Your task to perform on an android device: change text size in settings app Image 0: 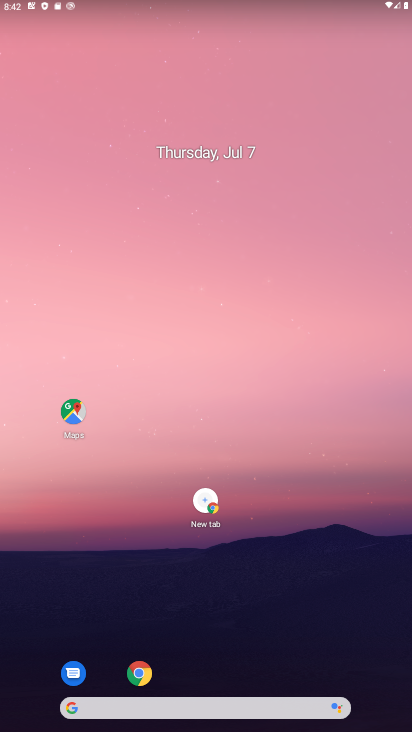
Step 0: press home button
Your task to perform on an android device: change text size in settings app Image 1: 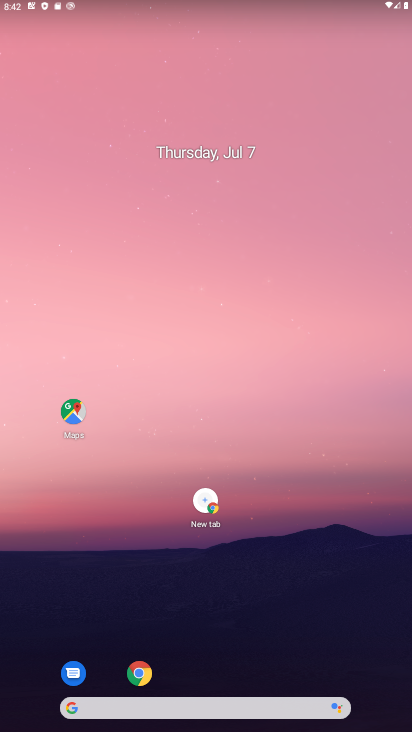
Step 1: press home button
Your task to perform on an android device: change text size in settings app Image 2: 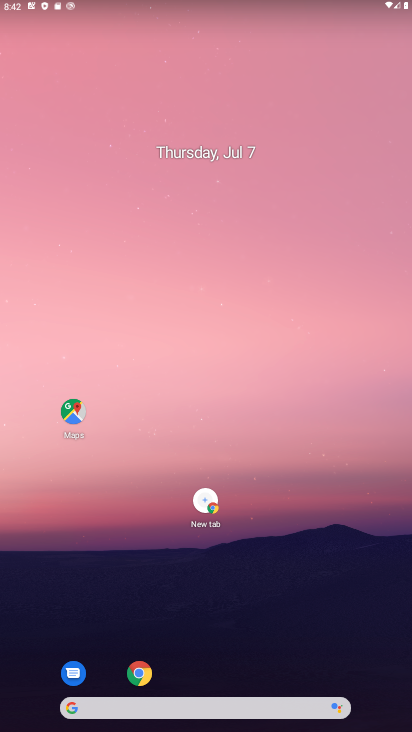
Step 2: drag from (365, 578) to (317, 131)
Your task to perform on an android device: change text size in settings app Image 3: 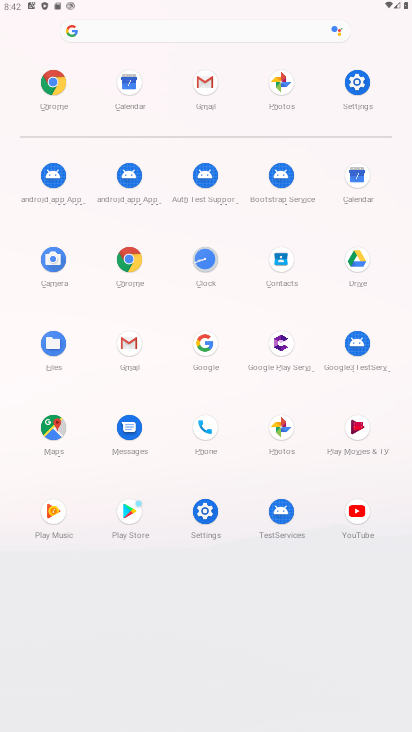
Step 3: click (367, 79)
Your task to perform on an android device: change text size in settings app Image 4: 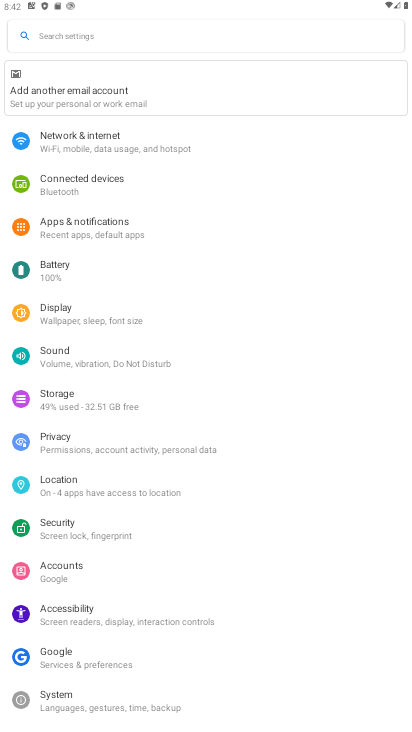
Step 4: click (75, 314)
Your task to perform on an android device: change text size in settings app Image 5: 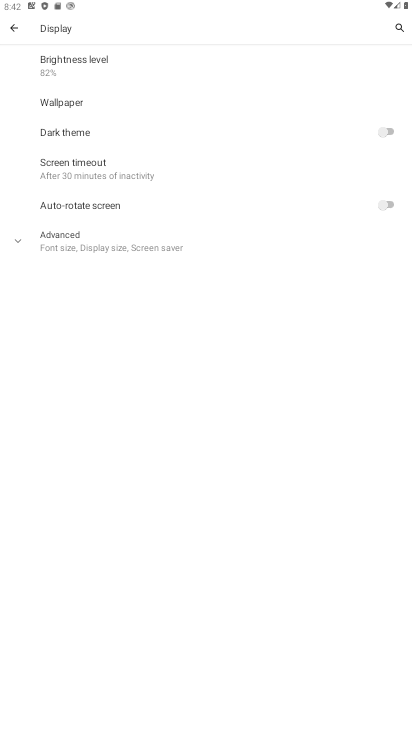
Step 5: click (85, 242)
Your task to perform on an android device: change text size in settings app Image 6: 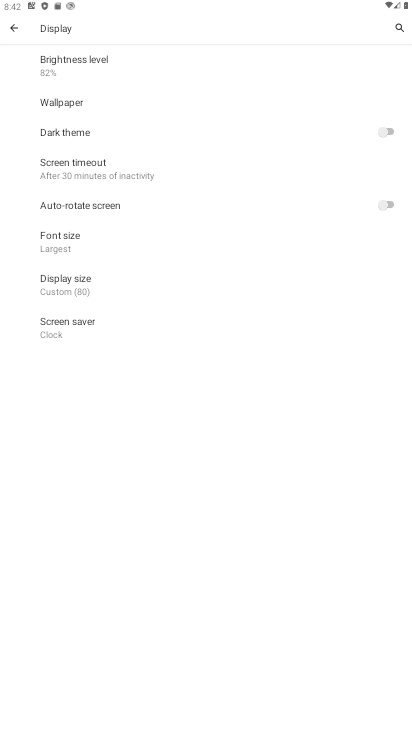
Step 6: click (85, 242)
Your task to perform on an android device: change text size in settings app Image 7: 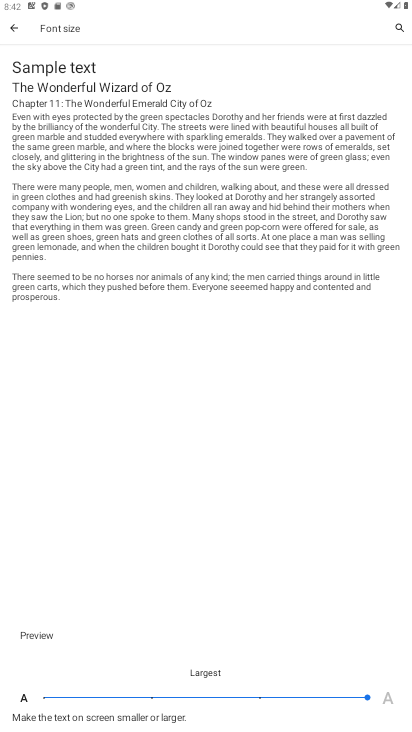
Step 7: drag from (370, 693) to (326, 682)
Your task to perform on an android device: change text size in settings app Image 8: 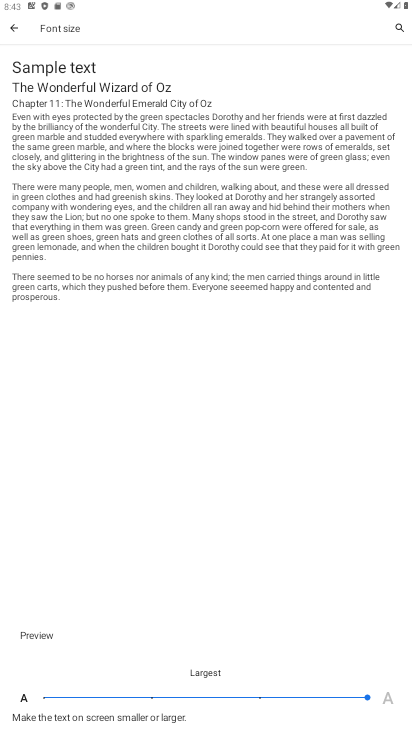
Step 8: drag from (363, 695) to (313, 690)
Your task to perform on an android device: change text size in settings app Image 9: 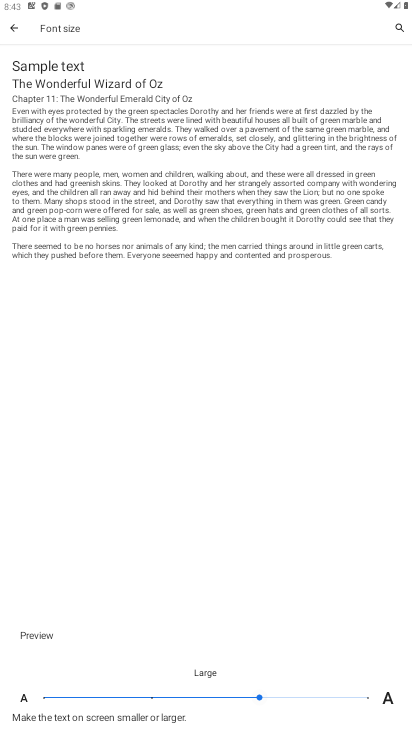
Step 9: click (313, 690)
Your task to perform on an android device: change text size in settings app Image 10: 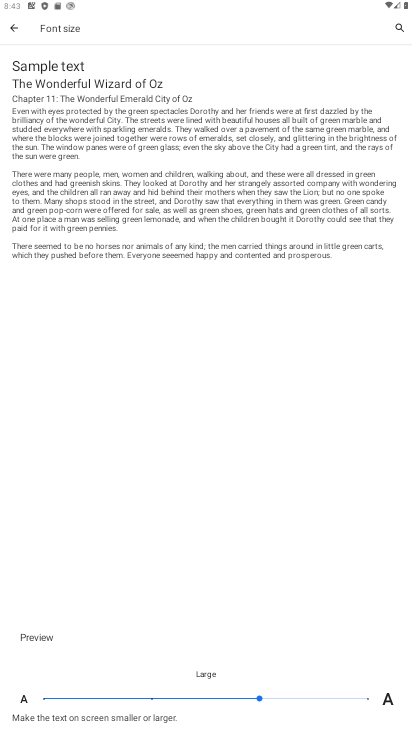
Step 10: drag from (260, 700) to (359, 701)
Your task to perform on an android device: change text size in settings app Image 11: 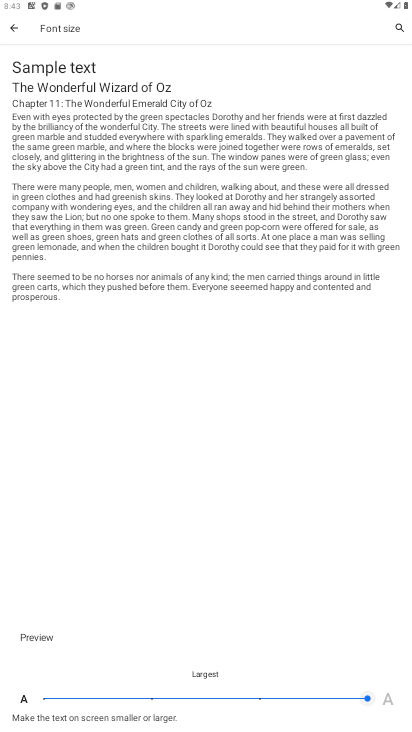
Step 11: click (255, 690)
Your task to perform on an android device: change text size in settings app Image 12: 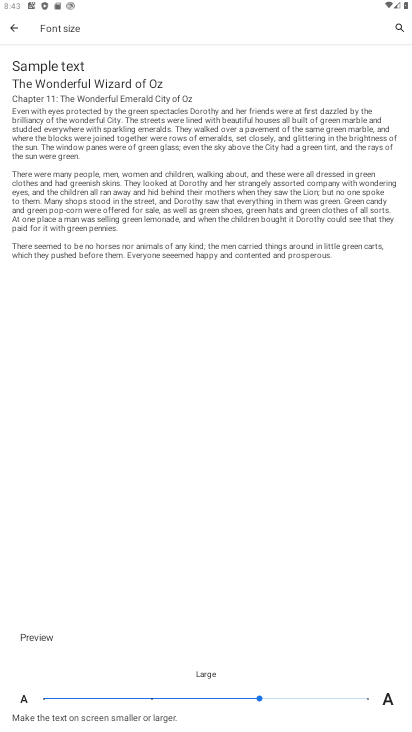
Step 12: task complete